Your task to perform on an android device: toggle notification dots Image 0: 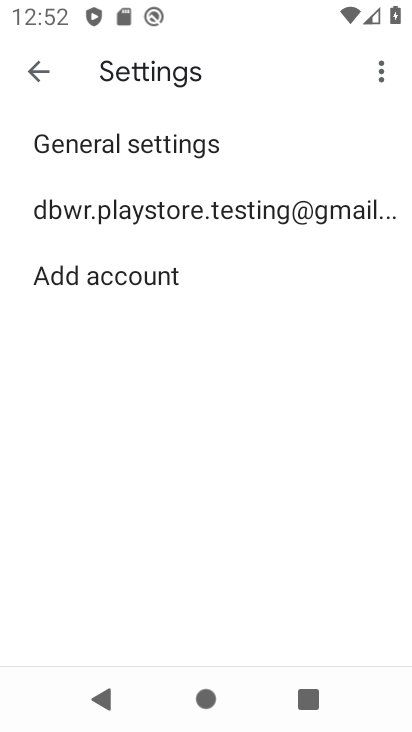
Step 0: press home button
Your task to perform on an android device: toggle notification dots Image 1: 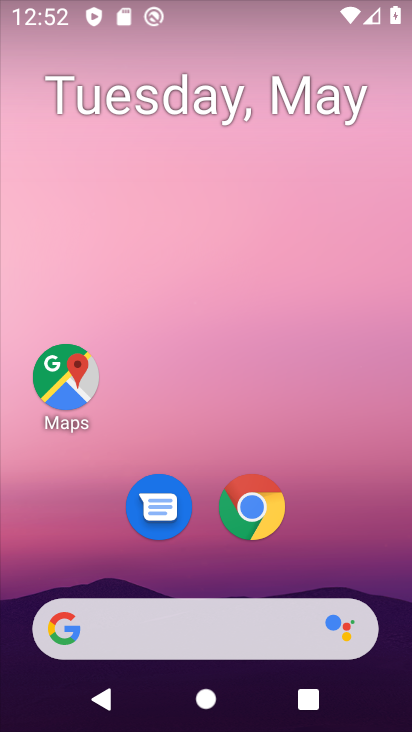
Step 1: drag from (305, 498) to (270, 289)
Your task to perform on an android device: toggle notification dots Image 2: 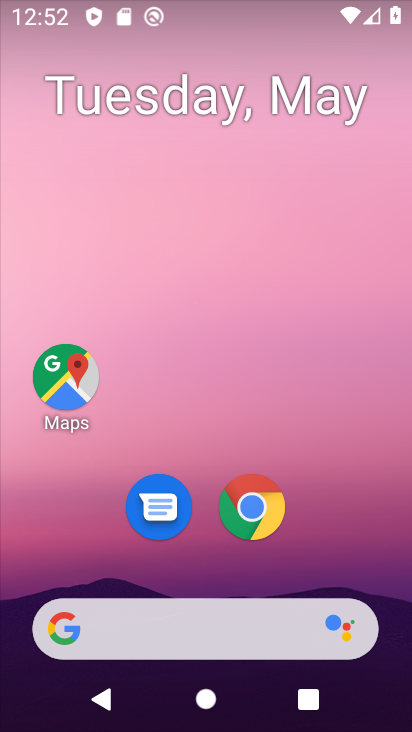
Step 2: drag from (309, 508) to (311, 120)
Your task to perform on an android device: toggle notification dots Image 3: 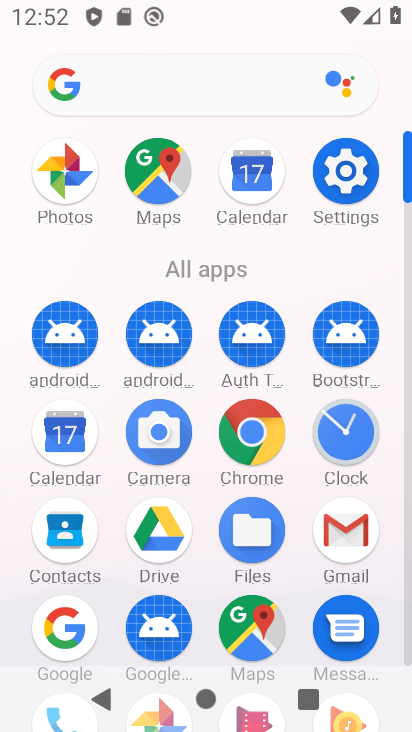
Step 3: click (335, 173)
Your task to perform on an android device: toggle notification dots Image 4: 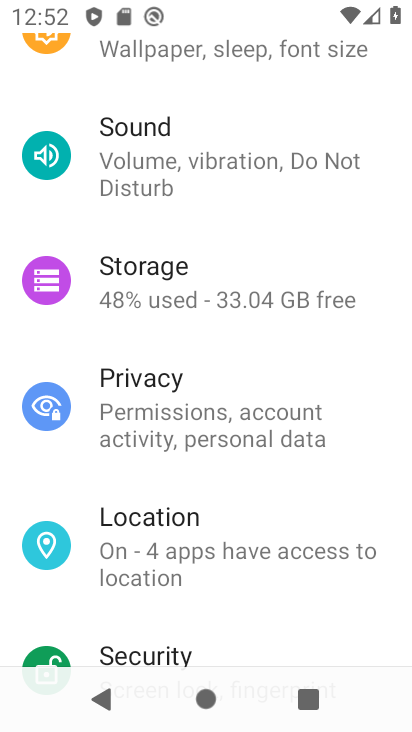
Step 4: drag from (195, 542) to (238, 236)
Your task to perform on an android device: toggle notification dots Image 5: 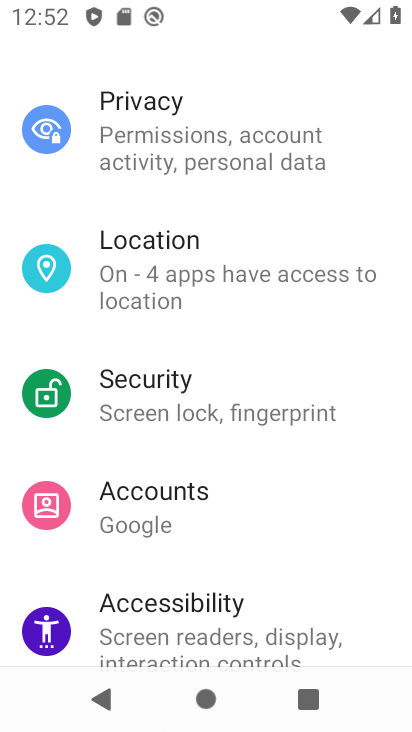
Step 5: drag from (240, 258) to (237, 603)
Your task to perform on an android device: toggle notification dots Image 6: 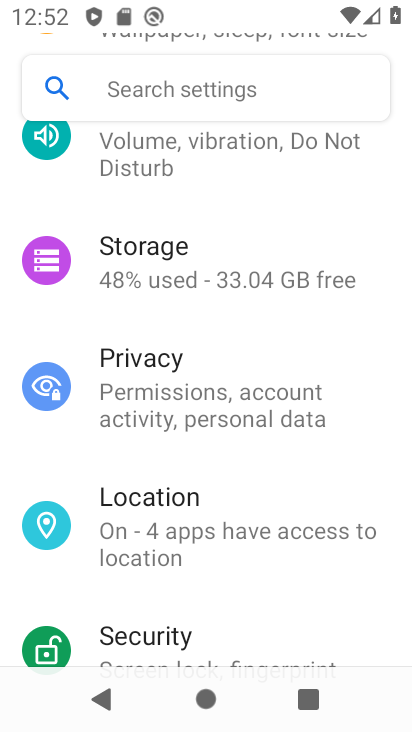
Step 6: drag from (242, 193) to (237, 533)
Your task to perform on an android device: toggle notification dots Image 7: 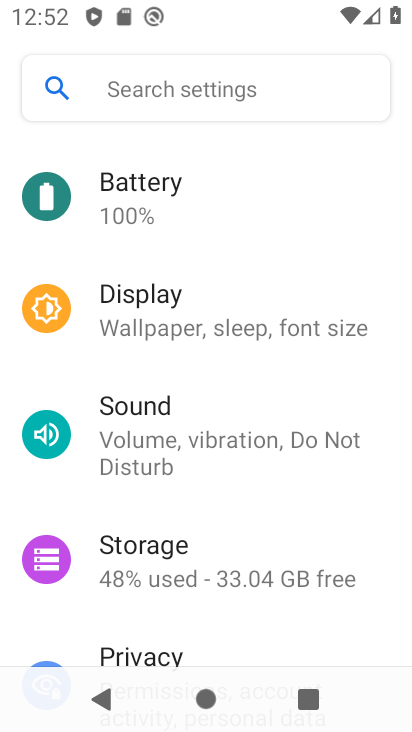
Step 7: drag from (256, 236) to (236, 558)
Your task to perform on an android device: toggle notification dots Image 8: 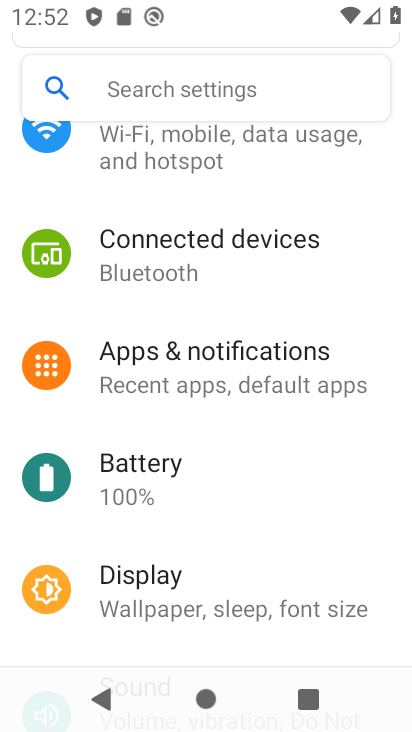
Step 8: click (240, 380)
Your task to perform on an android device: toggle notification dots Image 9: 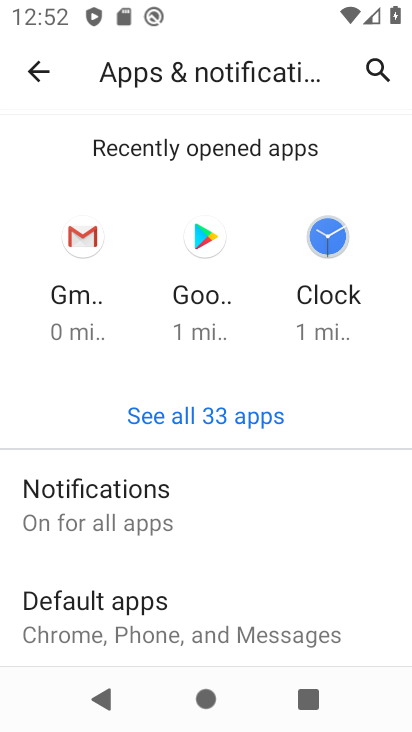
Step 9: click (153, 513)
Your task to perform on an android device: toggle notification dots Image 10: 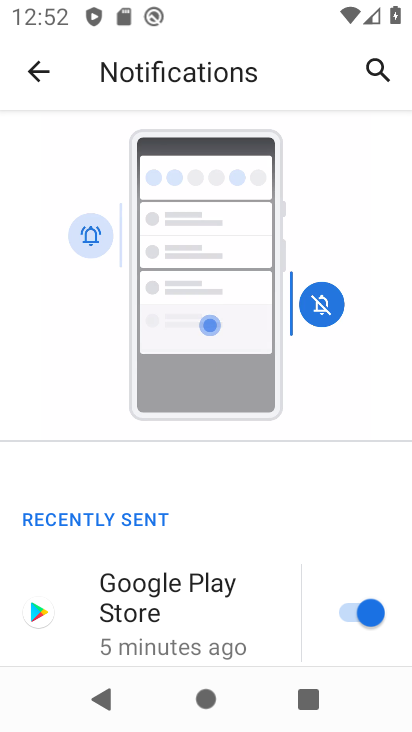
Step 10: drag from (153, 511) to (171, 101)
Your task to perform on an android device: toggle notification dots Image 11: 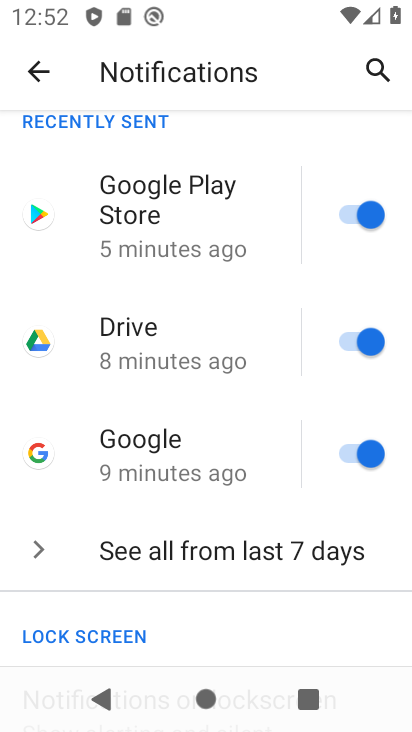
Step 11: drag from (197, 604) to (230, 230)
Your task to perform on an android device: toggle notification dots Image 12: 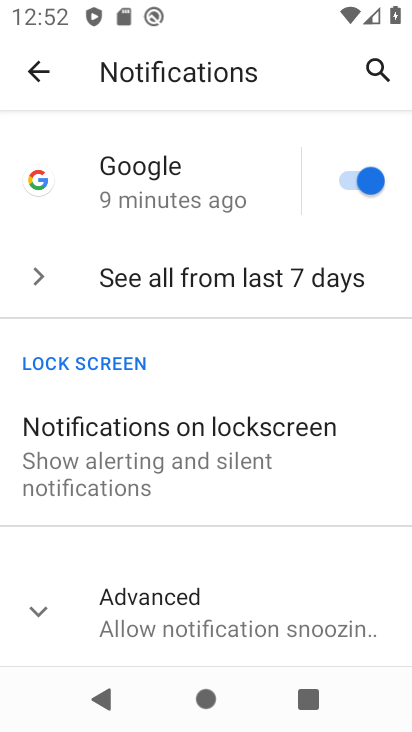
Step 12: click (46, 612)
Your task to perform on an android device: toggle notification dots Image 13: 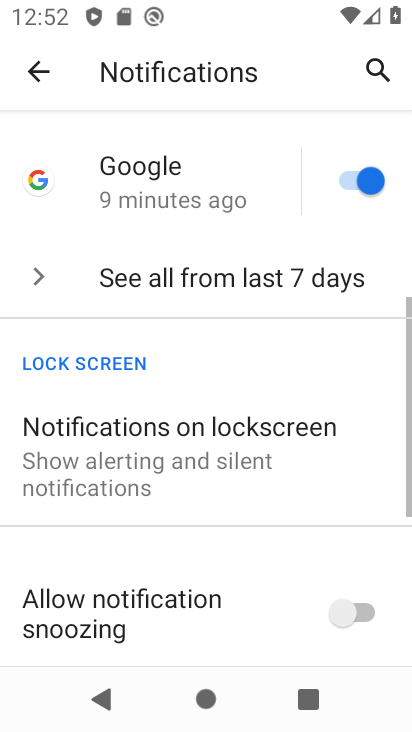
Step 13: drag from (150, 608) to (185, 301)
Your task to perform on an android device: toggle notification dots Image 14: 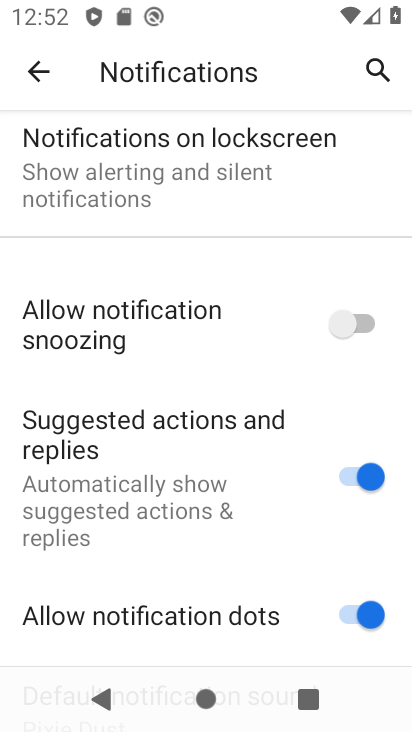
Step 14: click (380, 613)
Your task to perform on an android device: toggle notification dots Image 15: 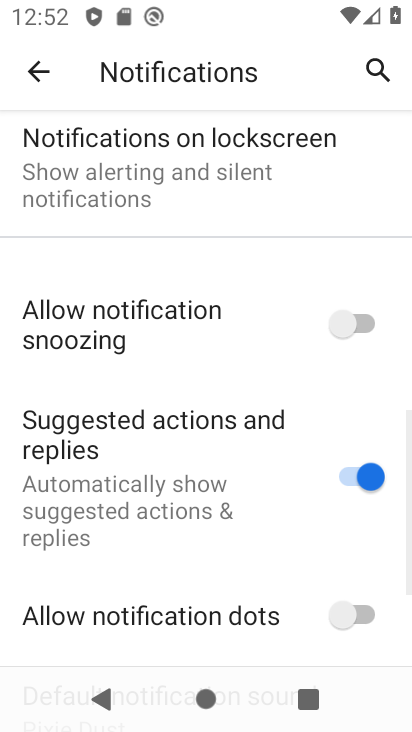
Step 15: task complete